Your task to perform on an android device: read, delete, or share a saved page in the chrome app Image 0: 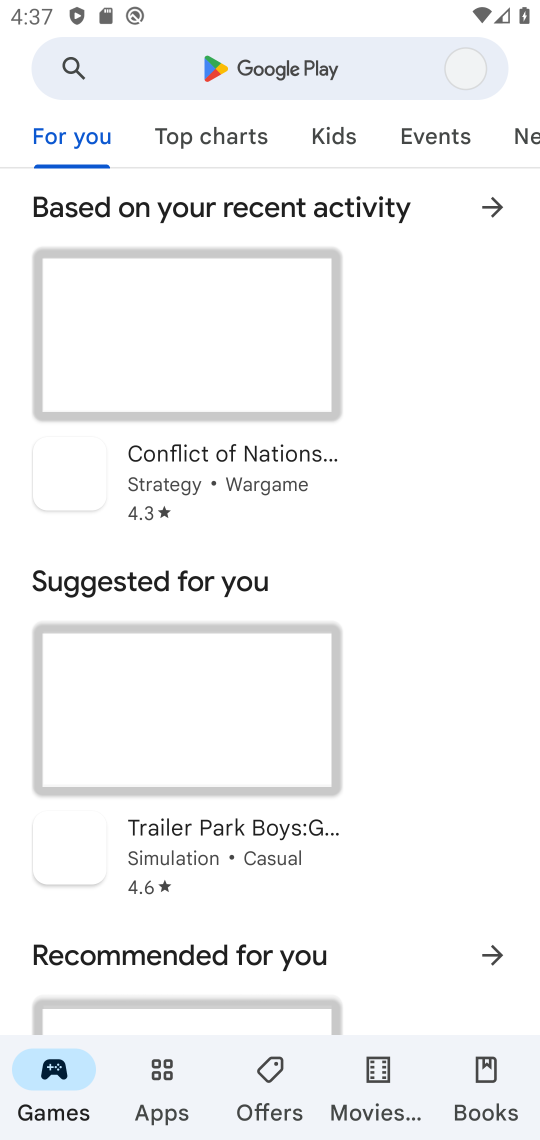
Step 0: press home button
Your task to perform on an android device: read, delete, or share a saved page in the chrome app Image 1: 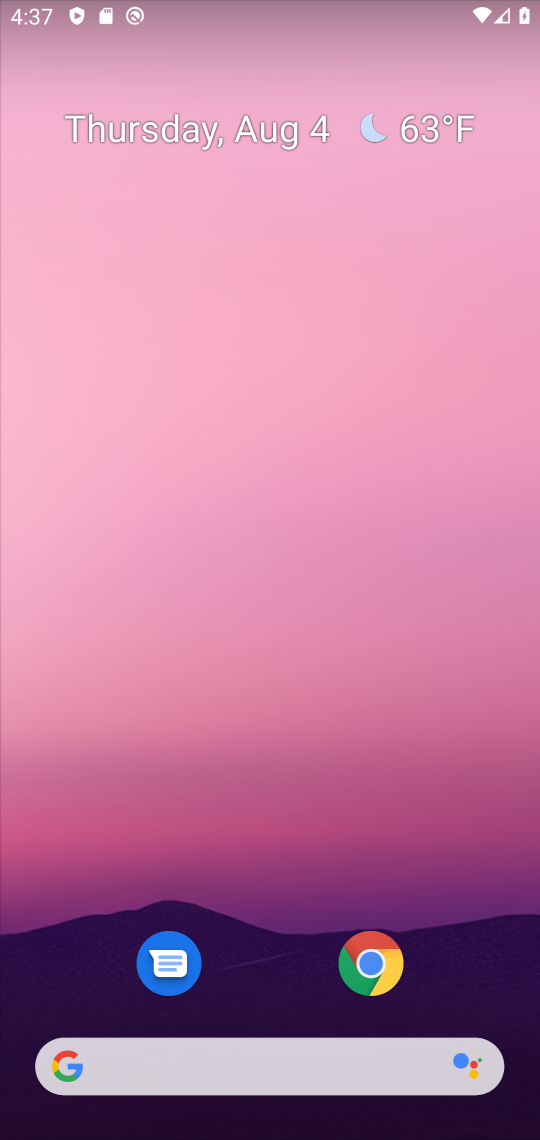
Step 1: click (377, 962)
Your task to perform on an android device: read, delete, or share a saved page in the chrome app Image 2: 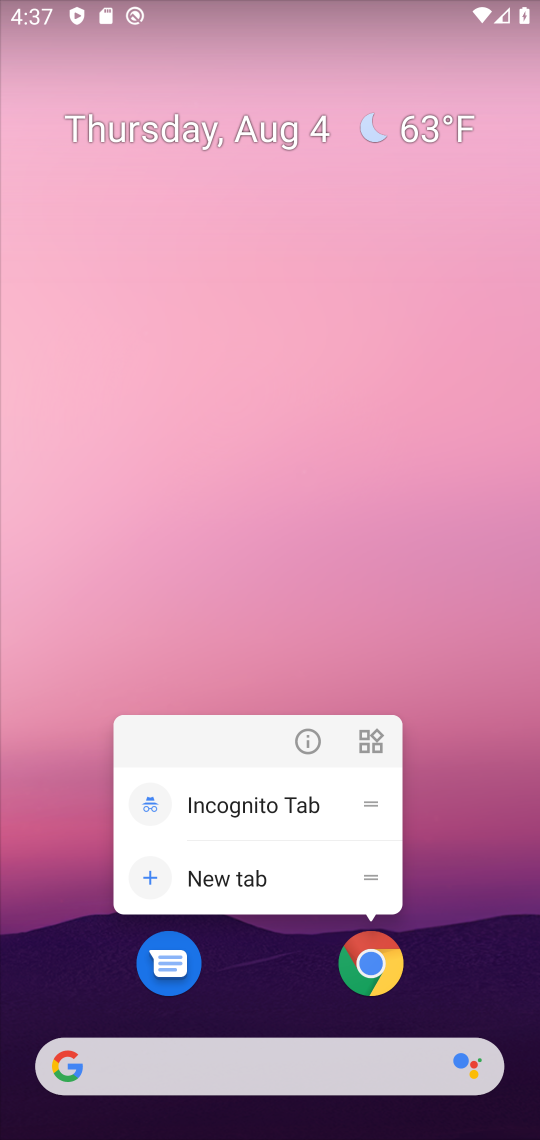
Step 2: click (380, 974)
Your task to perform on an android device: read, delete, or share a saved page in the chrome app Image 3: 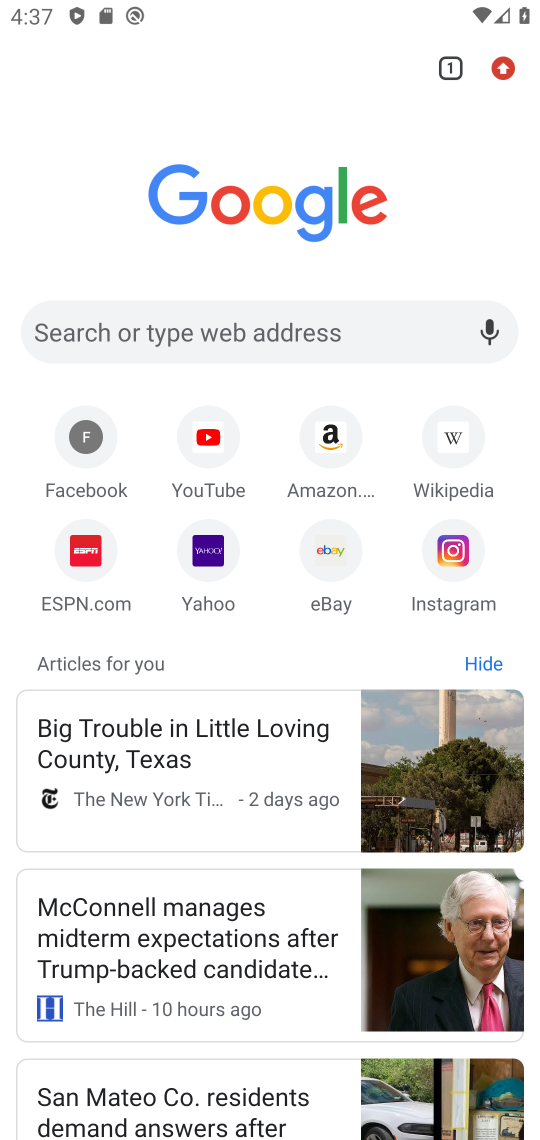
Step 3: click (499, 62)
Your task to perform on an android device: read, delete, or share a saved page in the chrome app Image 4: 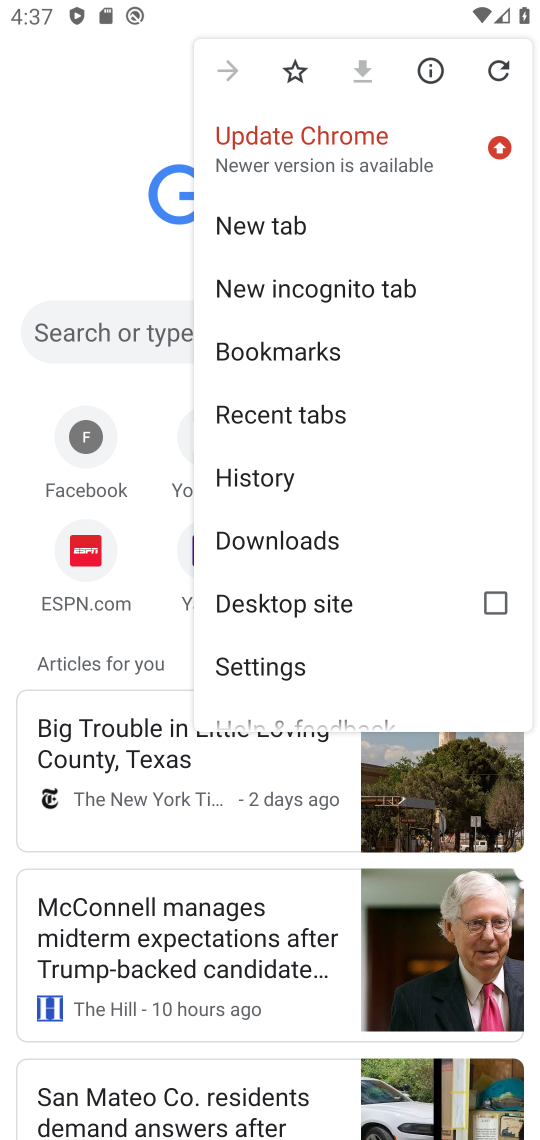
Step 4: click (259, 540)
Your task to perform on an android device: read, delete, or share a saved page in the chrome app Image 5: 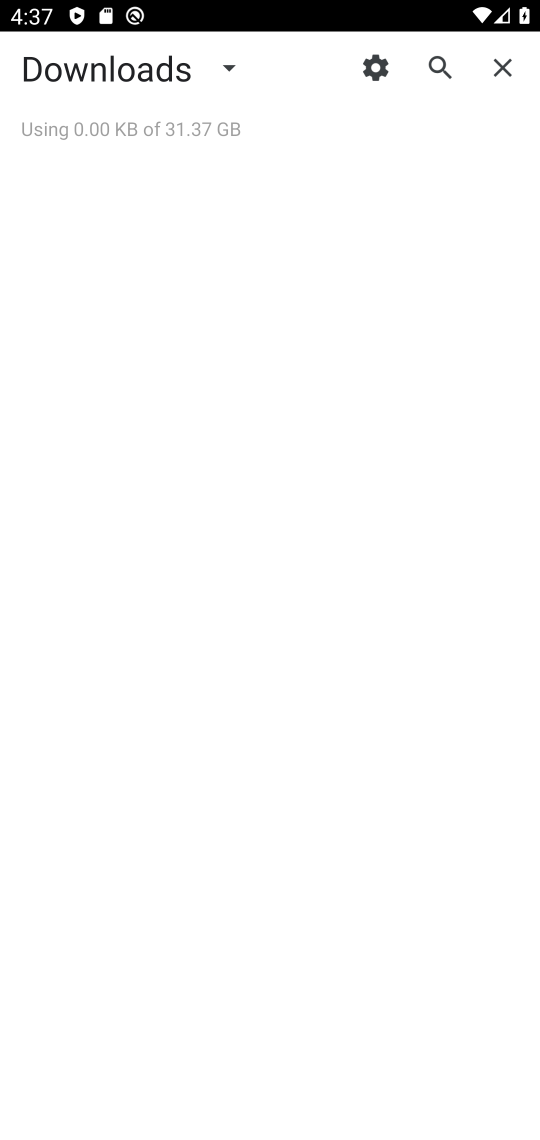
Step 5: task complete